Your task to perform on an android device: turn off improve location accuracy Image 0: 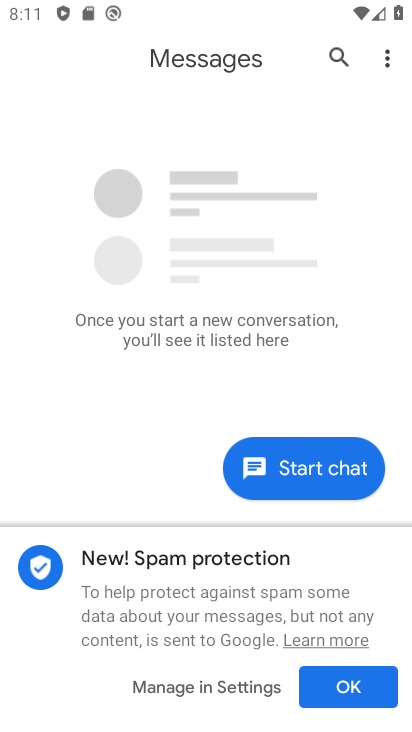
Step 0: press home button
Your task to perform on an android device: turn off improve location accuracy Image 1: 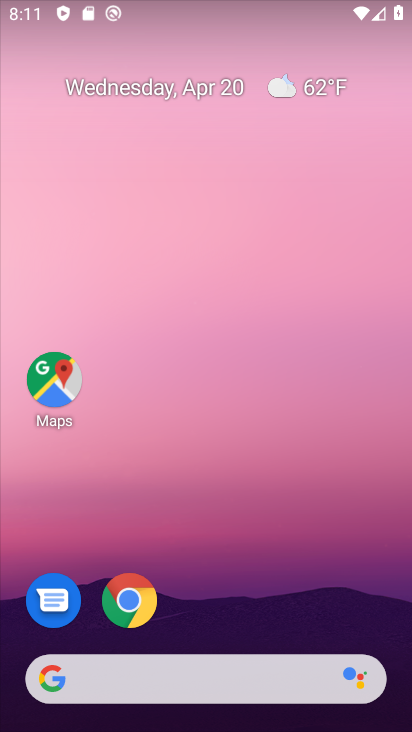
Step 1: drag from (208, 660) to (202, 131)
Your task to perform on an android device: turn off improve location accuracy Image 2: 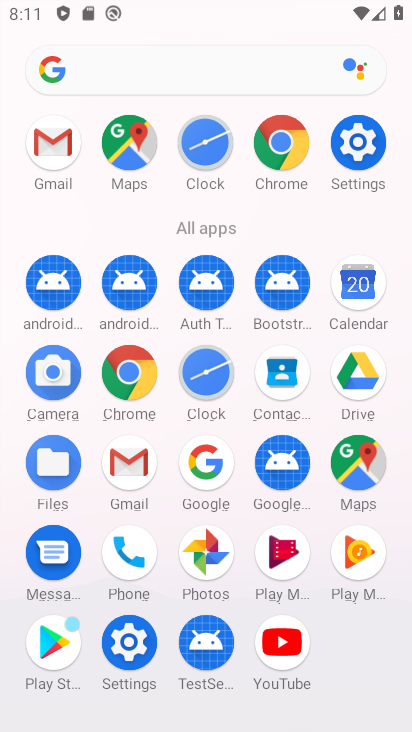
Step 2: click (125, 645)
Your task to perform on an android device: turn off improve location accuracy Image 3: 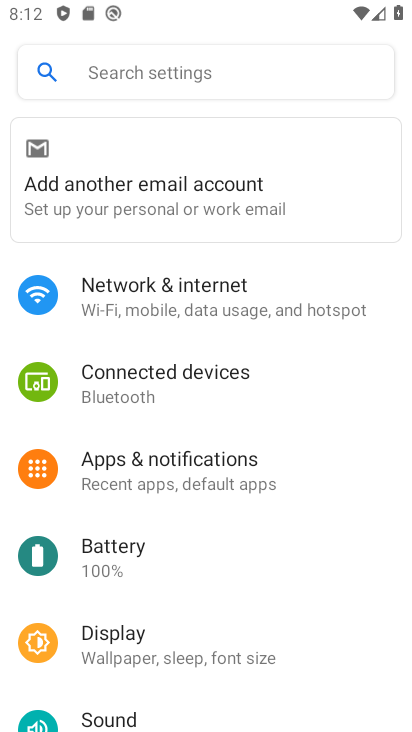
Step 3: drag from (175, 694) to (178, 272)
Your task to perform on an android device: turn off improve location accuracy Image 4: 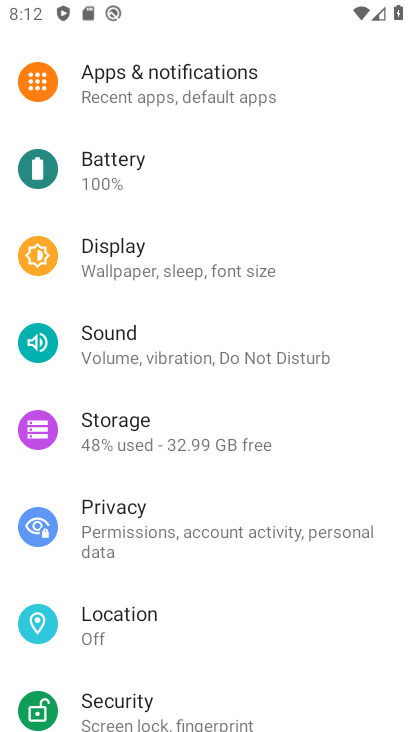
Step 4: click (117, 624)
Your task to perform on an android device: turn off improve location accuracy Image 5: 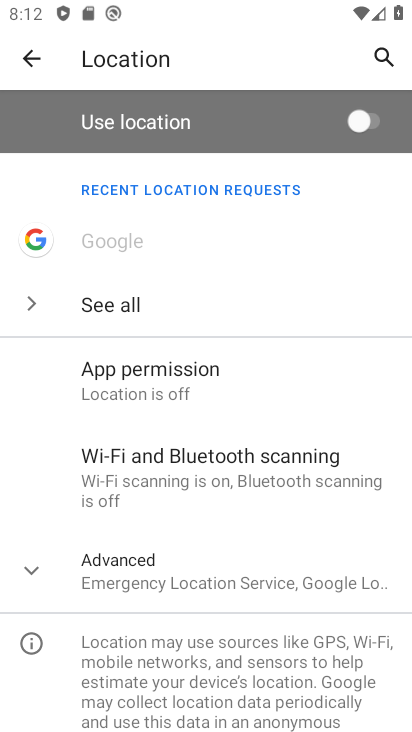
Step 5: click (130, 579)
Your task to perform on an android device: turn off improve location accuracy Image 6: 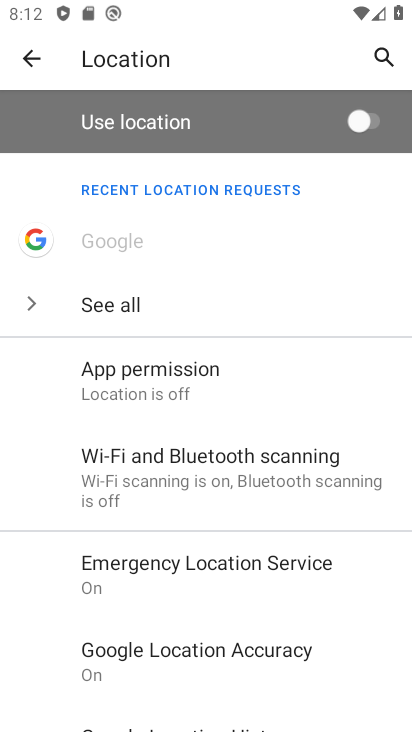
Step 6: click (165, 653)
Your task to perform on an android device: turn off improve location accuracy Image 7: 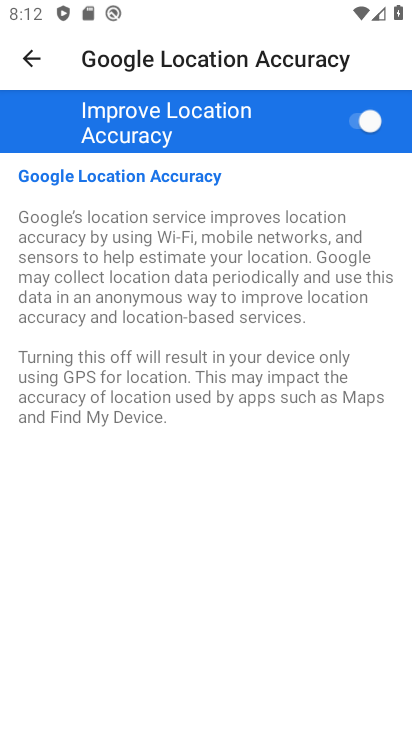
Step 7: click (354, 121)
Your task to perform on an android device: turn off improve location accuracy Image 8: 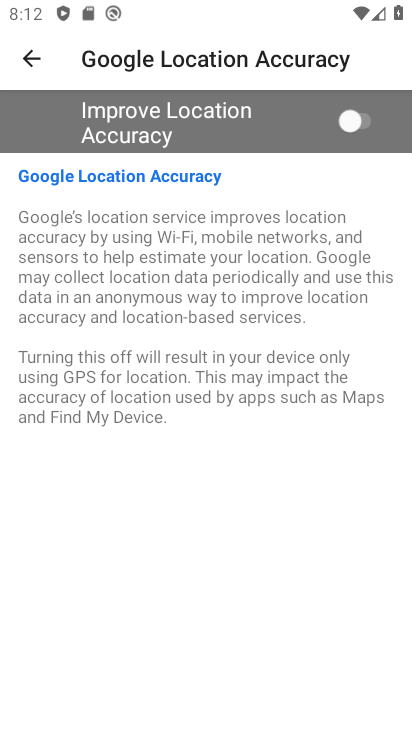
Step 8: task complete